Your task to perform on an android device: Show me recent news Image 0: 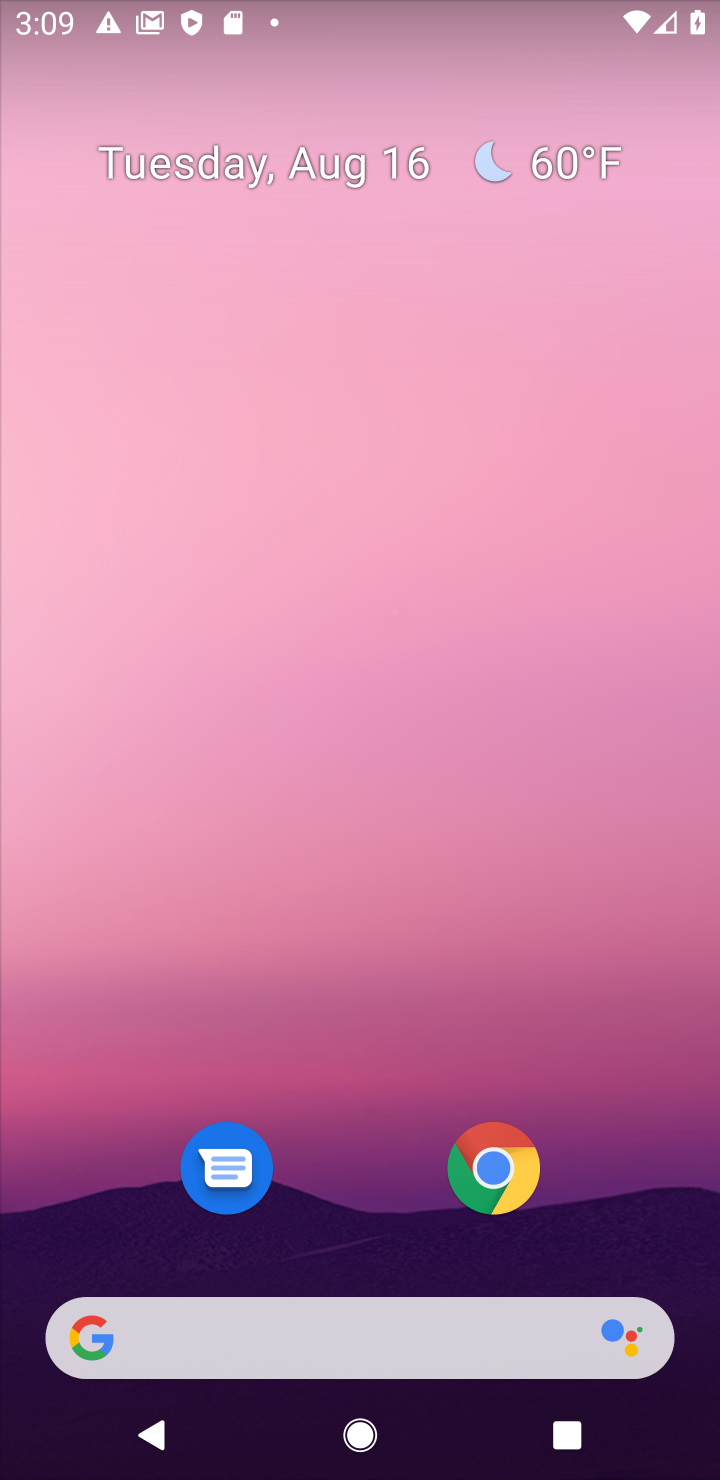
Step 0: click (312, 1328)
Your task to perform on an android device: Show me recent news Image 1: 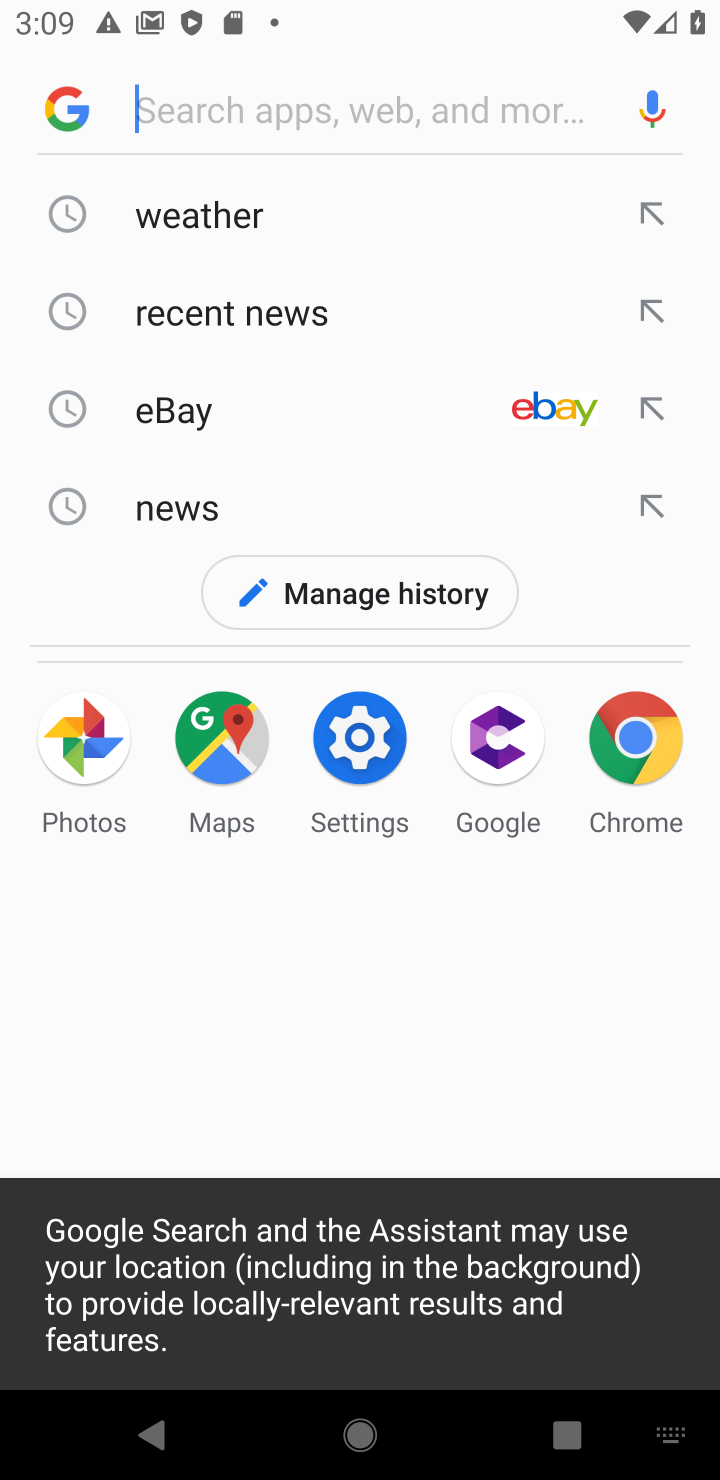
Step 1: click (192, 294)
Your task to perform on an android device: Show me recent news Image 2: 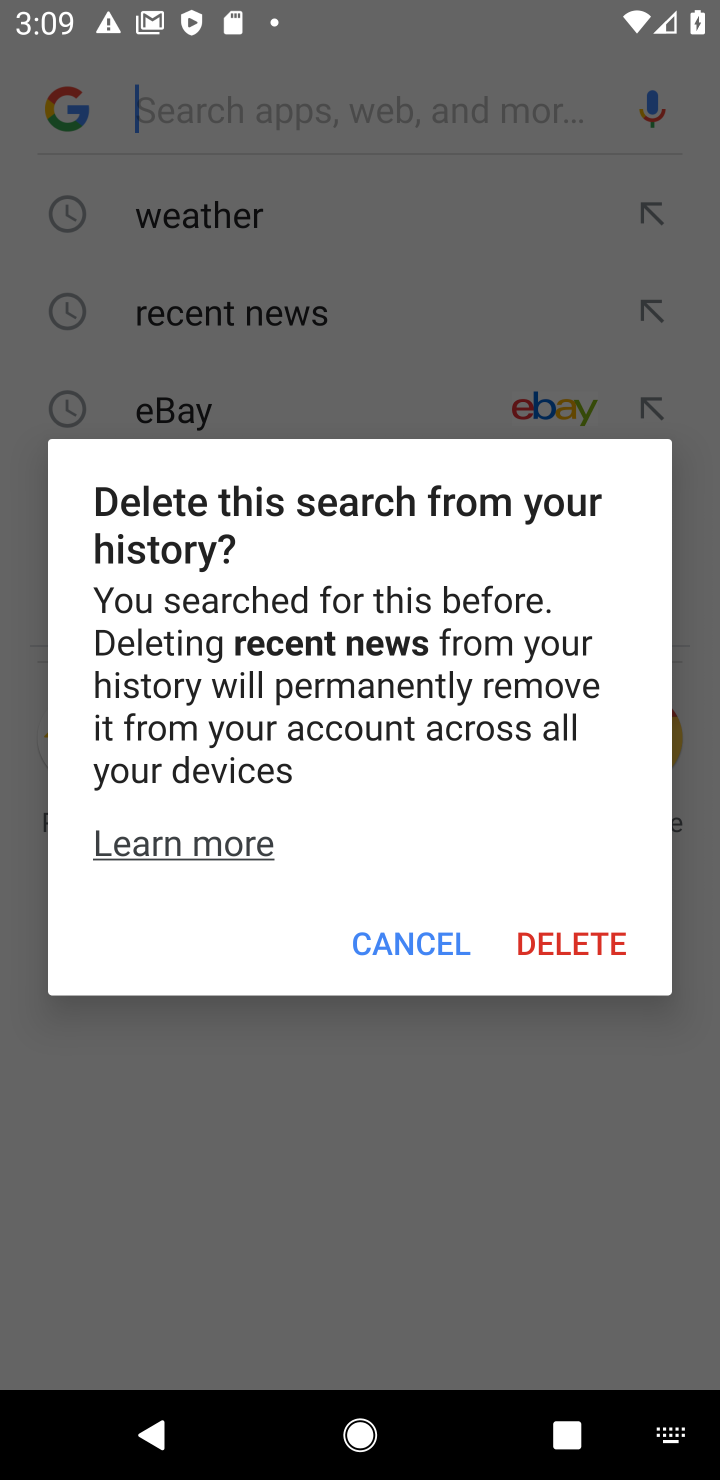
Step 2: click (421, 954)
Your task to perform on an android device: Show me recent news Image 3: 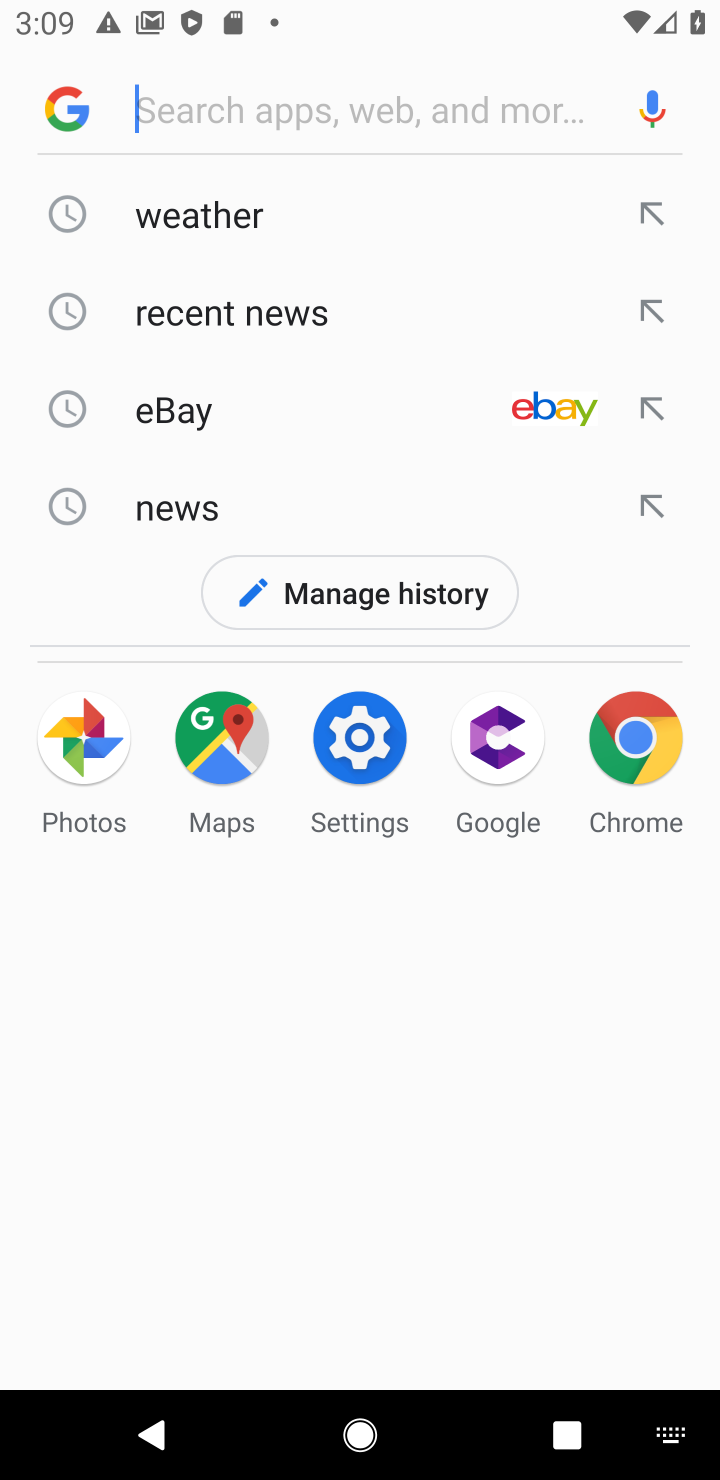
Step 3: click (356, 307)
Your task to perform on an android device: Show me recent news Image 4: 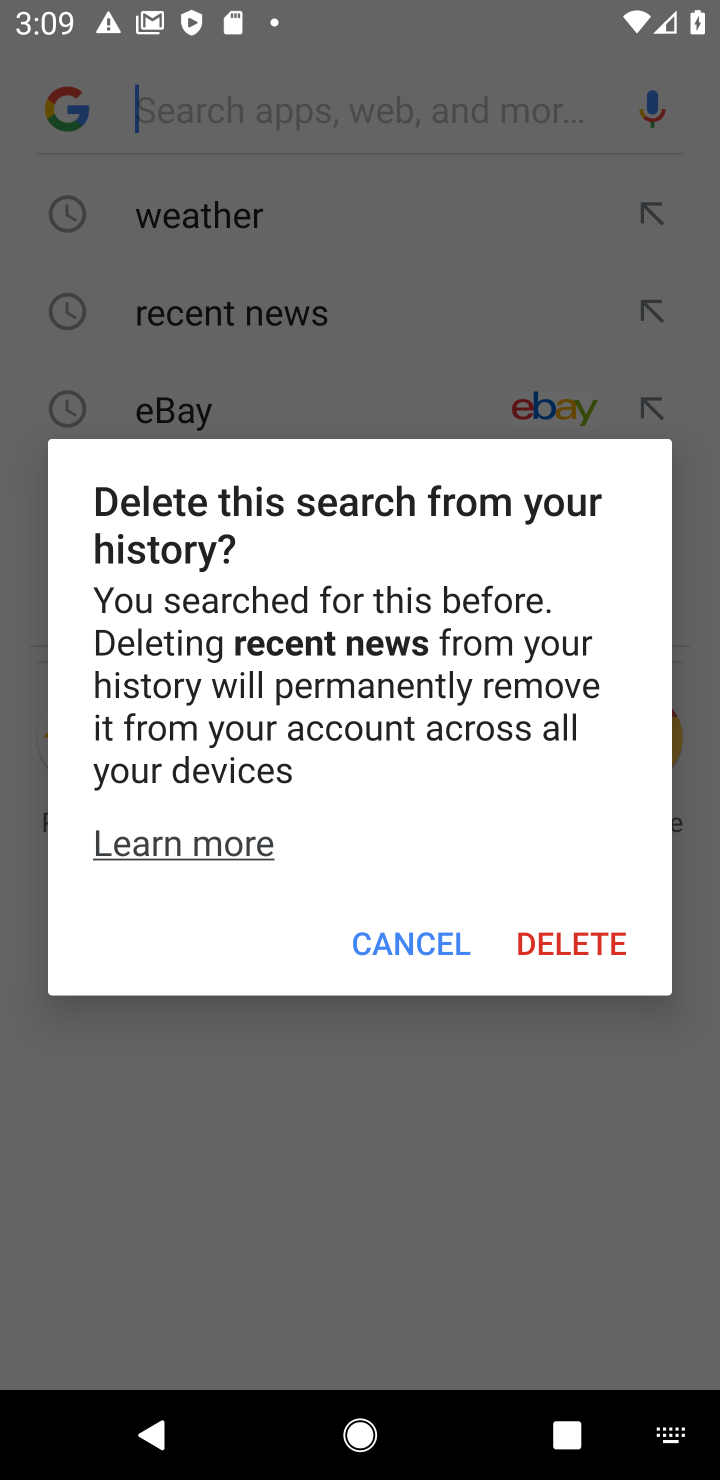
Step 4: click (388, 949)
Your task to perform on an android device: Show me recent news Image 5: 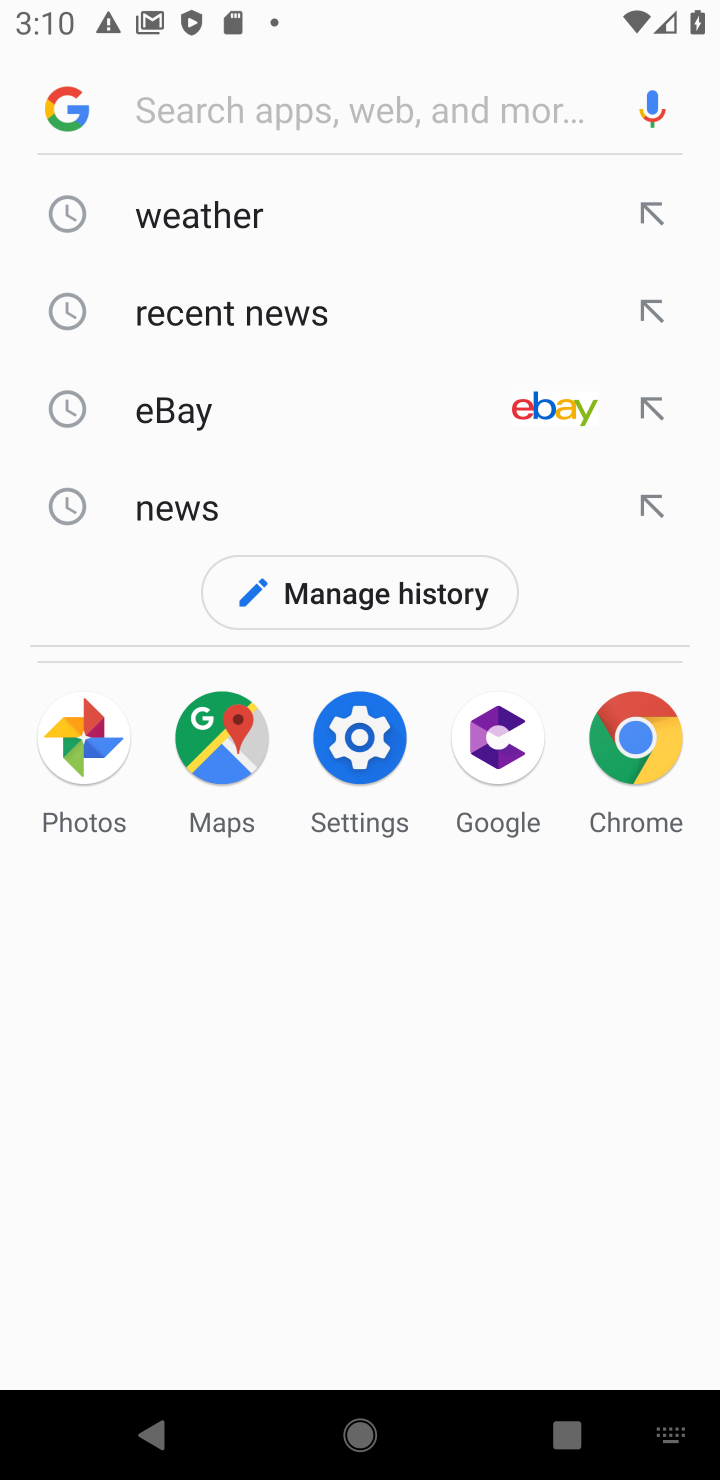
Step 5: click (132, 297)
Your task to perform on an android device: Show me recent news Image 6: 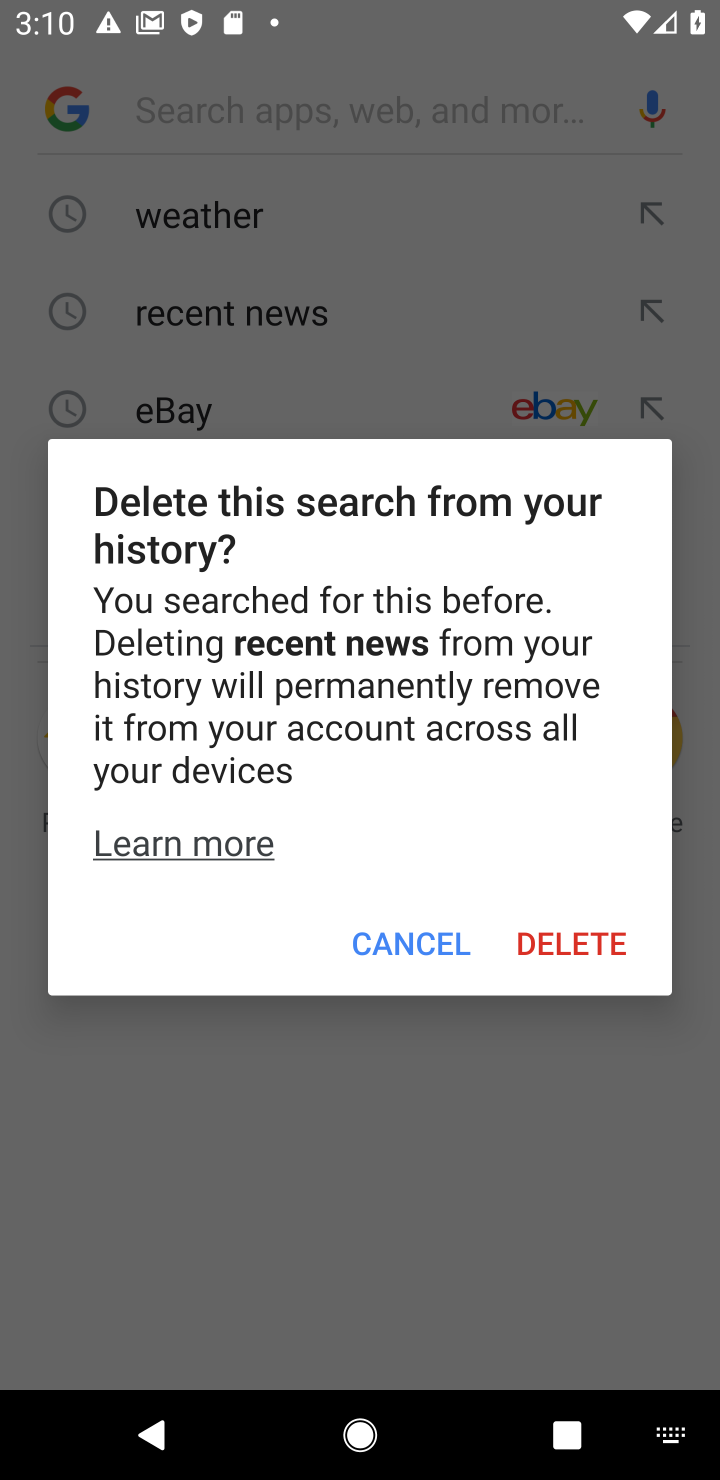
Step 6: click (425, 943)
Your task to perform on an android device: Show me recent news Image 7: 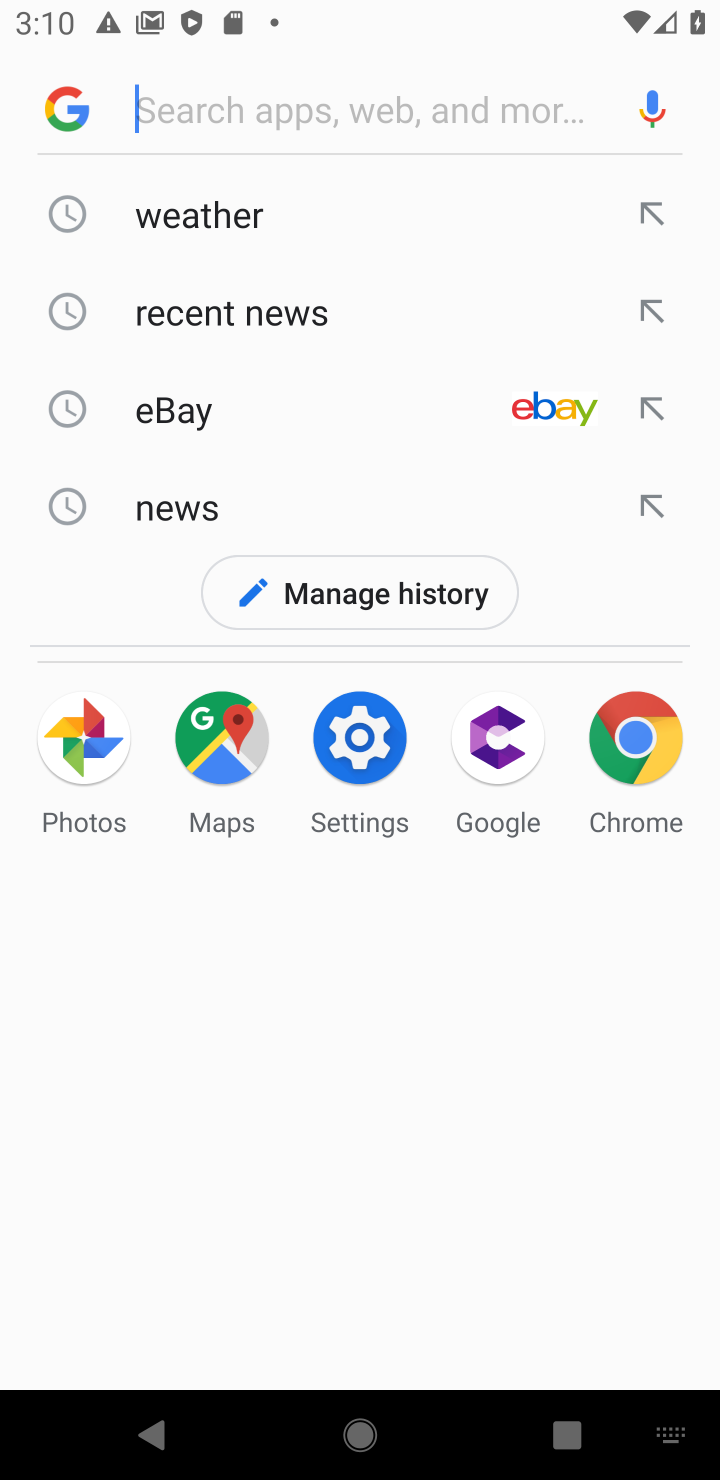
Step 7: click (222, 311)
Your task to perform on an android device: Show me recent news Image 8: 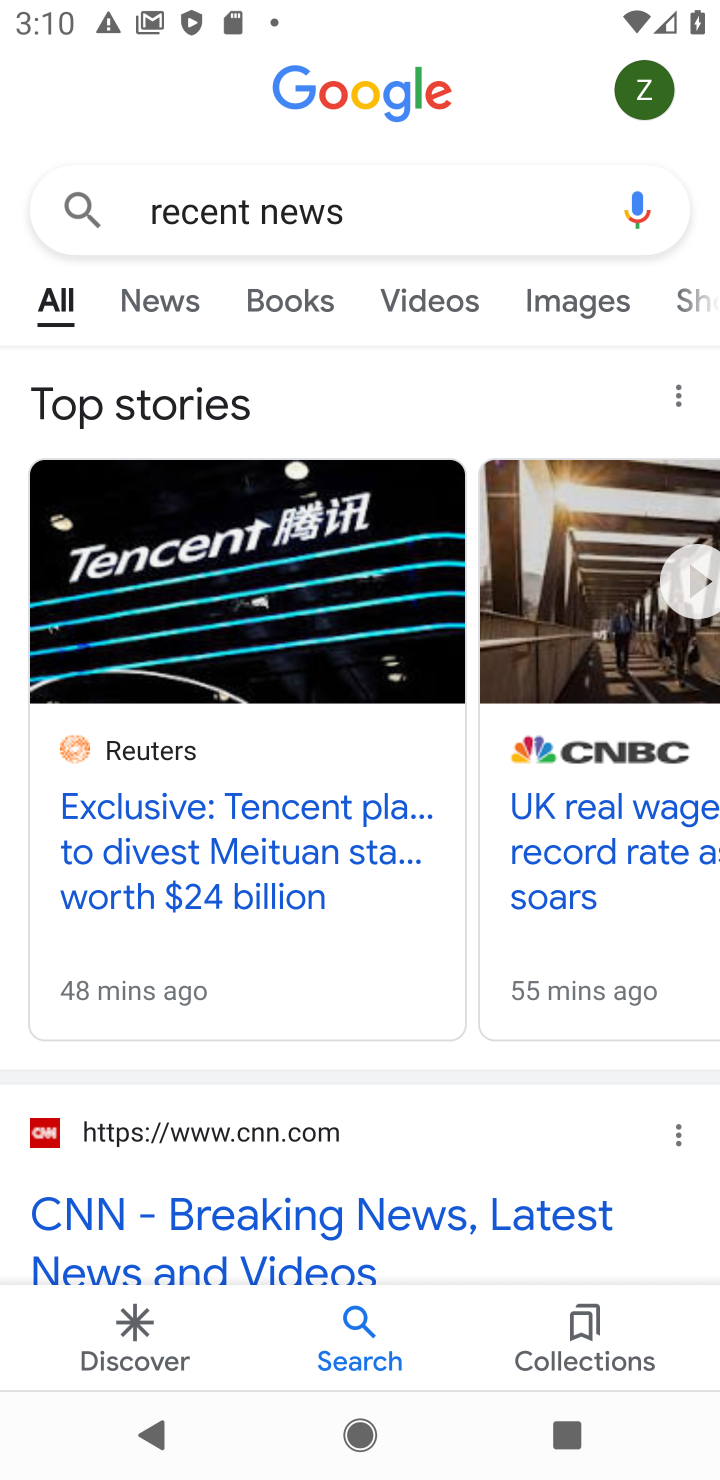
Step 8: click (169, 301)
Your task to perform on an android device: Show me recent news Image 9: 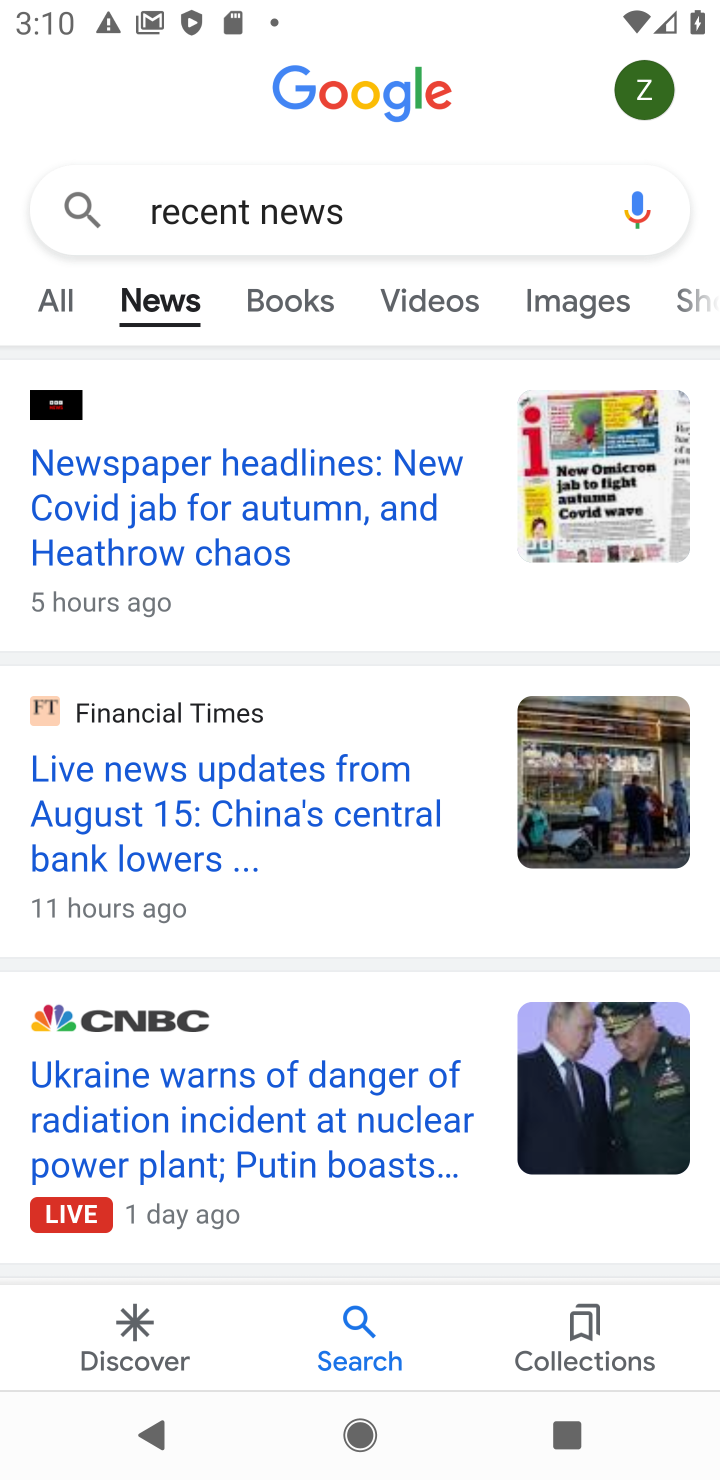
Step 9: task complete